Your task to perform on an android device: refresh tabs in the chrome app Image 0: 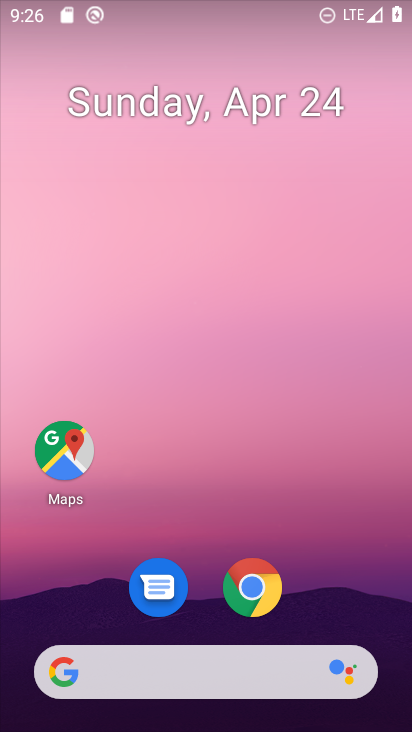
Step 0: drag from (363, 527) to (335, 180)
Your task to perform on an android device: refresh tabs in the chrome app Image 1: 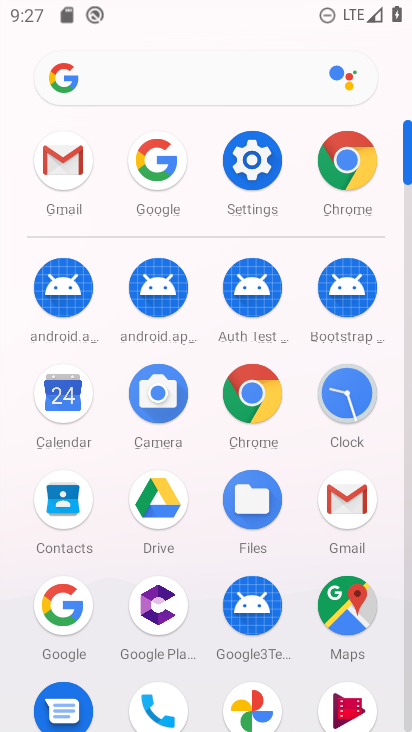
Step 1: click (245, 397)
Your task to perform on an android device: refresh tabs in the chrome app Image 2: 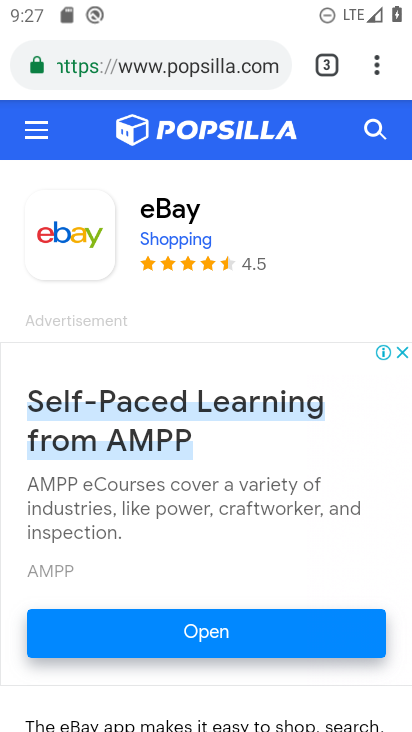
Step 2: task complete